Your task to perform on an android device: Go to privacy settings Image 0: 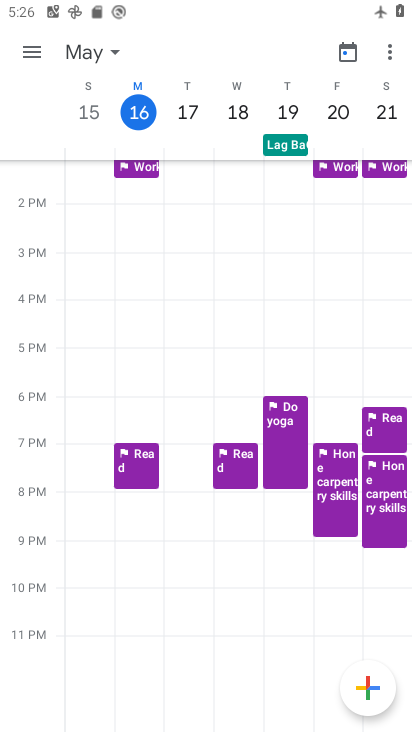
Step 0: press home button
Your task to perform on an android device: Go to privacy settings Image 1: 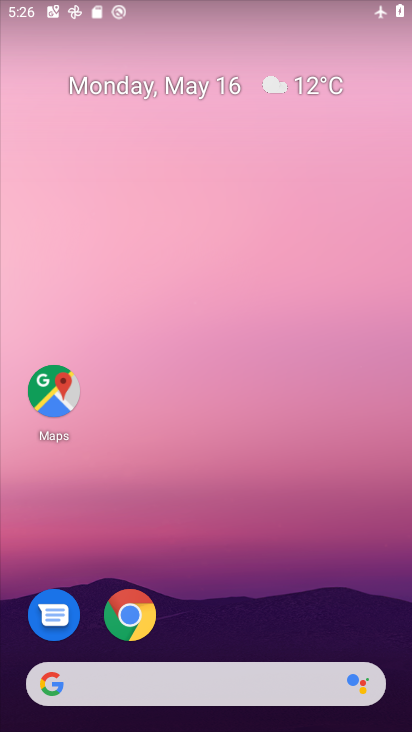
Step 1: drag from (240, 633) to (290, 130)
Your task to perform on an android device: Go to privacy settings Image 2: 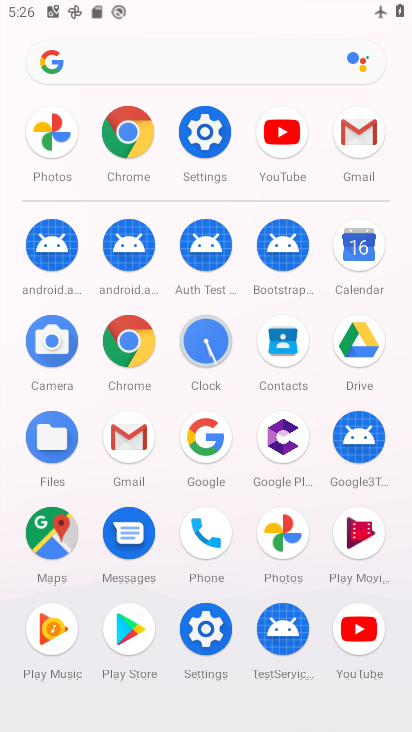
Step 2: click (207, 625)
Your task to perform on an android device: Go to privacy settings Image 3: 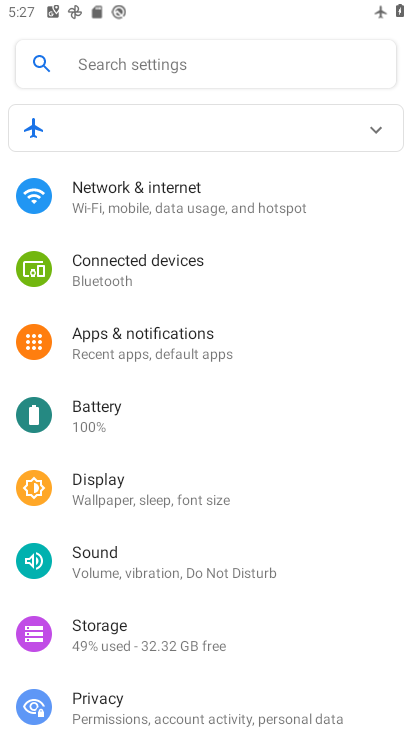
Step 3: drag from (128, 609) to (153, 284)
Your task to perform on an android device: Go to privacy settings Image 4: 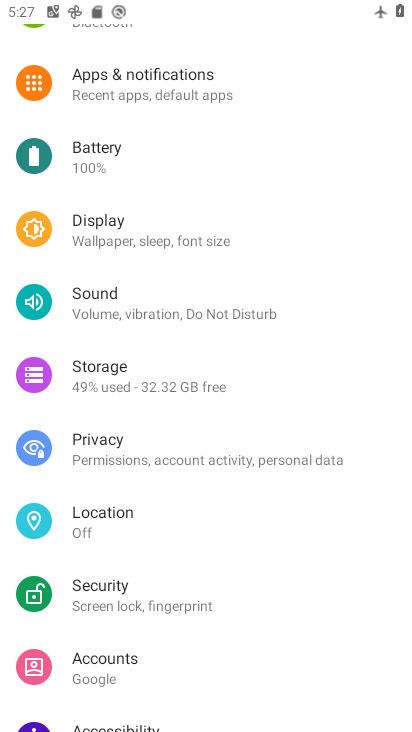
Step 4: click (105, 464)
Your task to perform on an android device: Go to privacy settings Image 5: 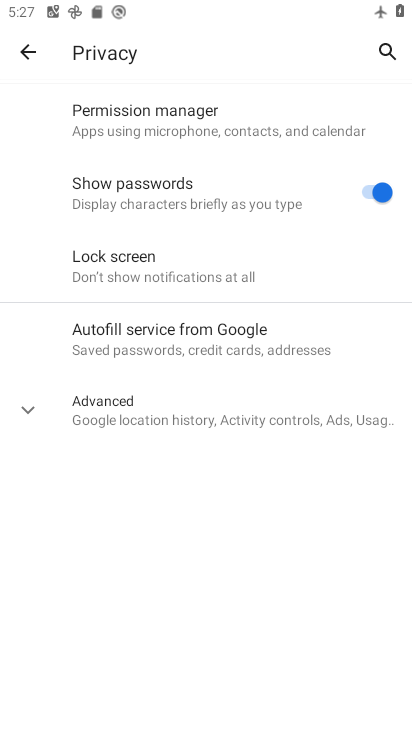
Step 5: task complete